Your task to perform on an android device: change your default location settings in chrome Image 0: 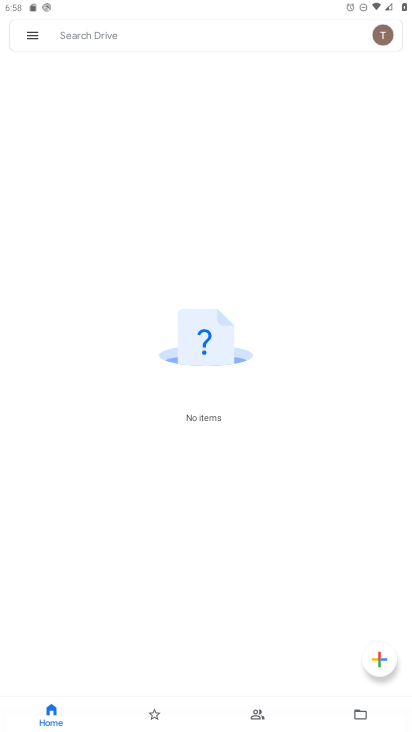
Step 0: press home button
Your task to perform on an android device: change your default location settings in chrome Image 1: 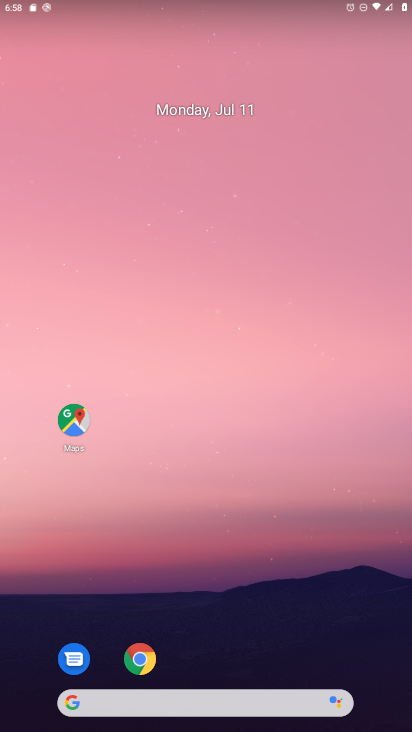
Step 1: click (142, 656)
Your task to perform on an android device: change your default location settings in chrome Image 2: 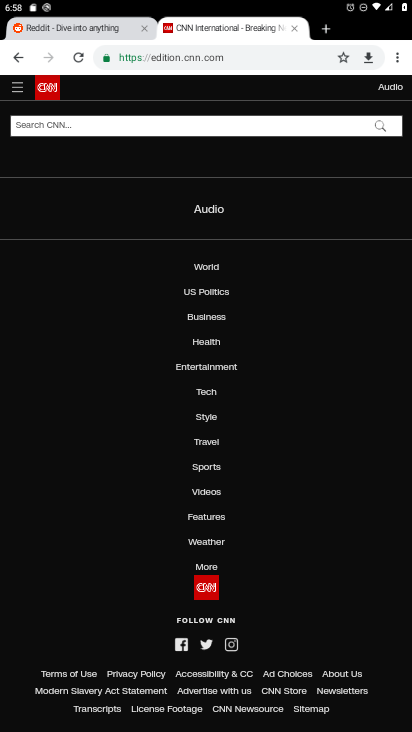
Step 2: click (395, 61)
Your task to perform on an android device: change your default location settings in chrome Image 3: 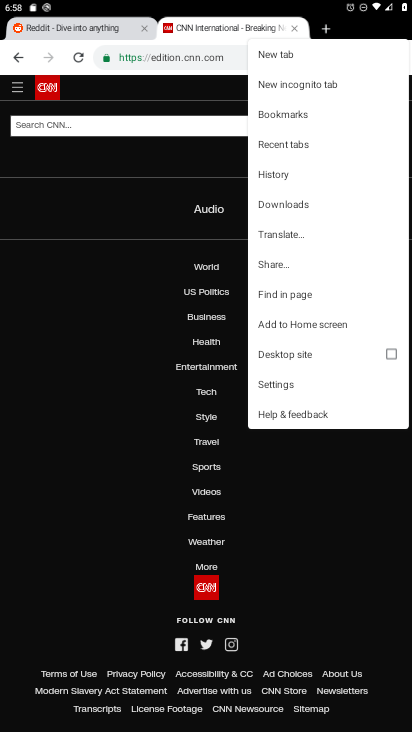
Step 3: click (277, 378)
Your task to perform on an android device: change your default location settings in chrome Image 4: 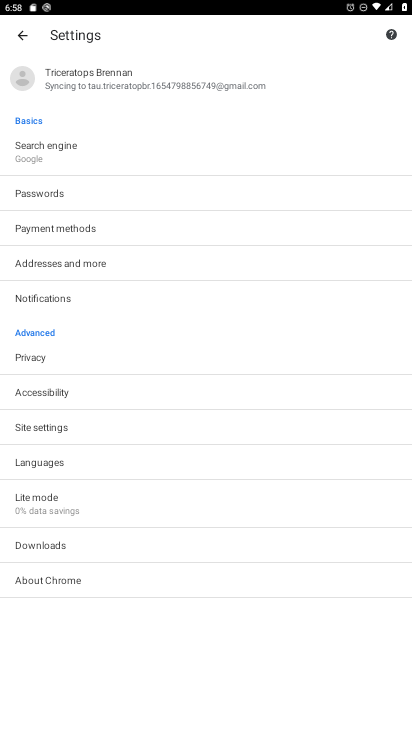
Step 4: click (32, 425)
Your task to perform on an android device: change your default location settings in chrome Image 5: 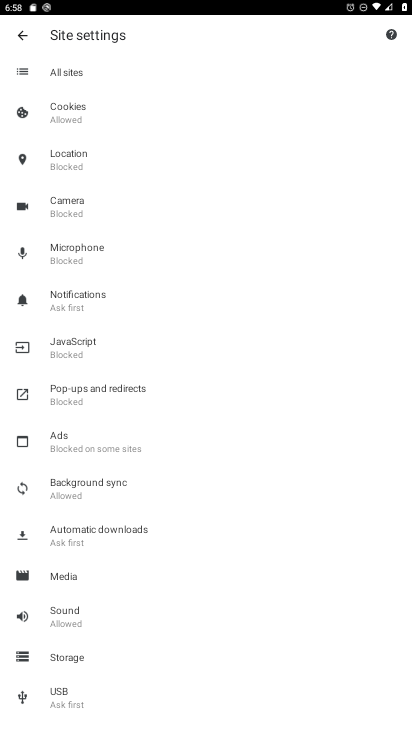
Step 5: click (58, 149)
Your task to perform on an android device: change your default location settings in chrome Image 6: 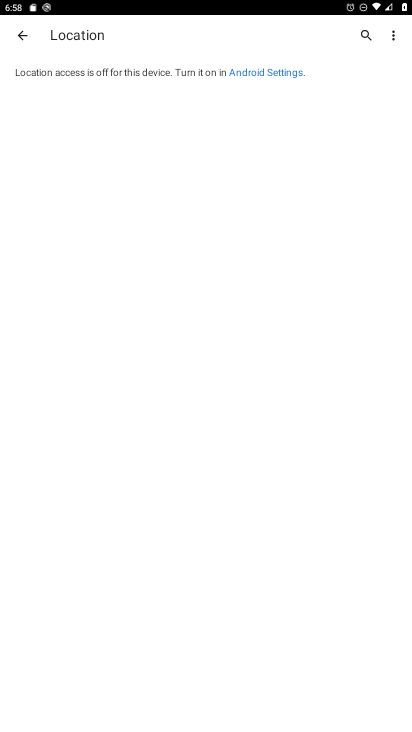
Step 6: task complete